Your task to perform on an android device: set default search engine in the chrome app Image 0: 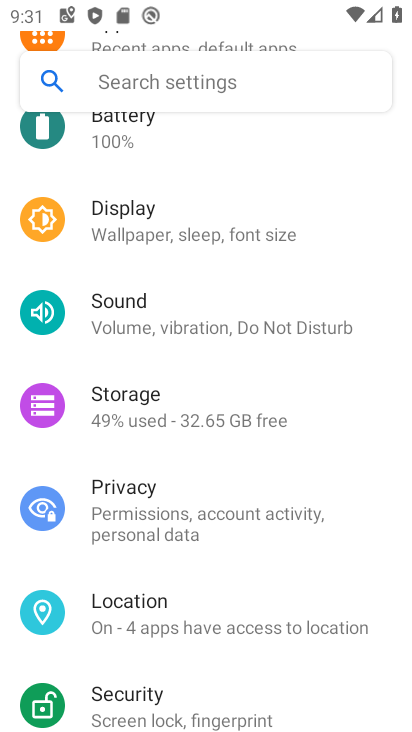
Step 0: press home button
Your task to perform on an android device: set default search engine in the chrome app Image 1: 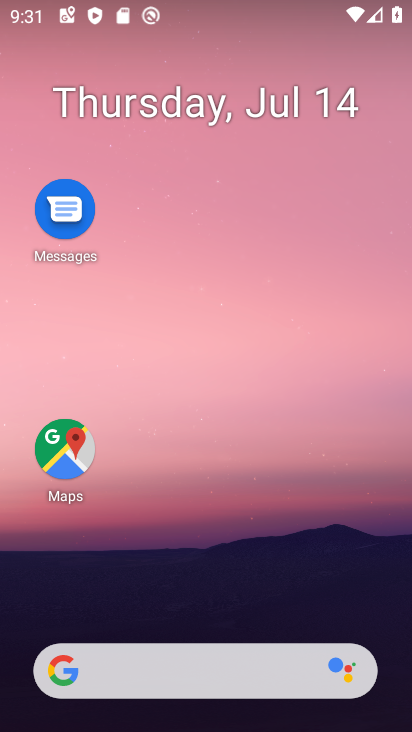
Step 1: drag from (208, 615) to (161, 83)
Your task to perform on an android device: set default search engine in the chrome app Image 2: 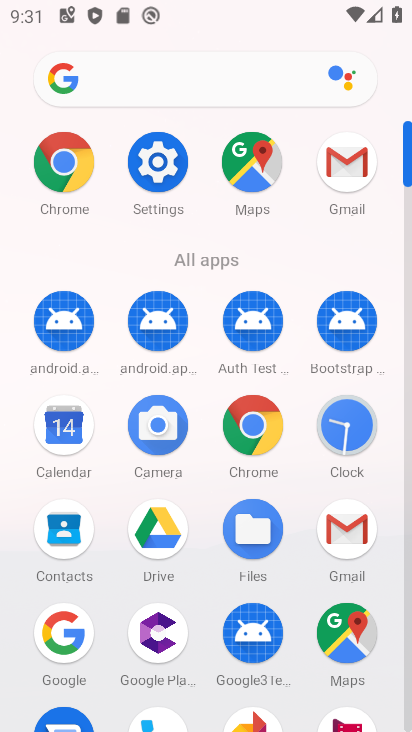
Step 2: click (237, 422)
Your task to perform on an android device: set default search engine in the chrome app Image 3: 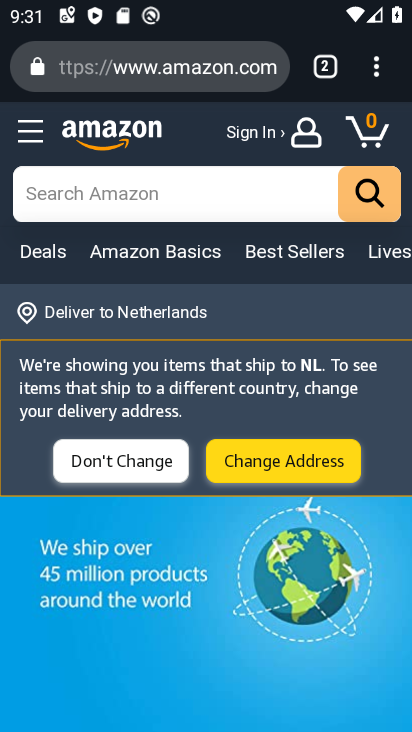
Step 3: click (380, 63)
Your task to perform on an android device: set default search engine in the chrome app Image 4: 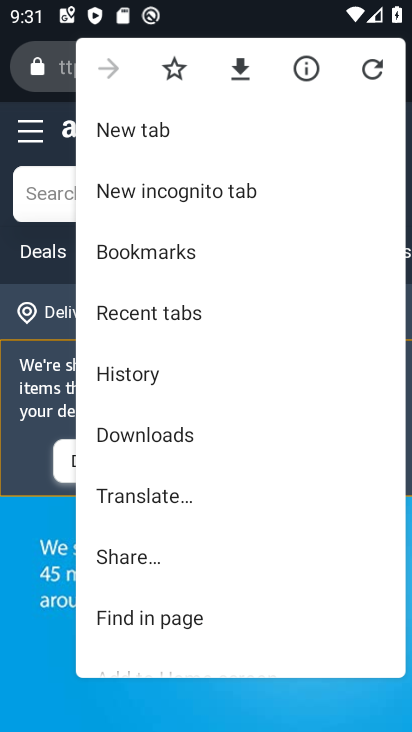
Step 4: drag from (142, 613) to (93, 14)
Your task to perform on an android device: set default search engine in the chrome app Image 5: 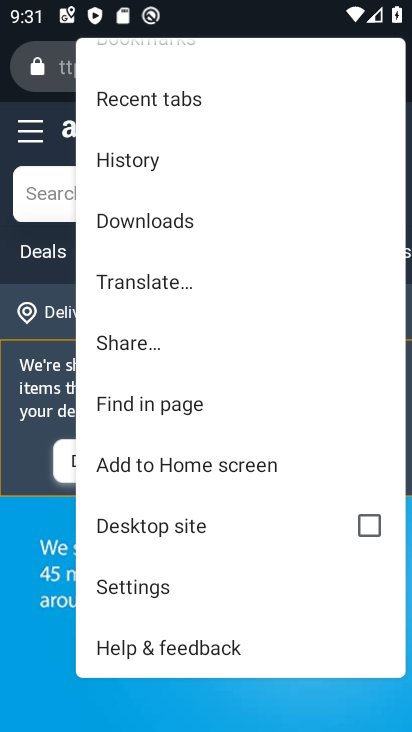
Step 5: click (121, 598)
Your task to perform on an android device: set default search engine in the chrome app Image 6: 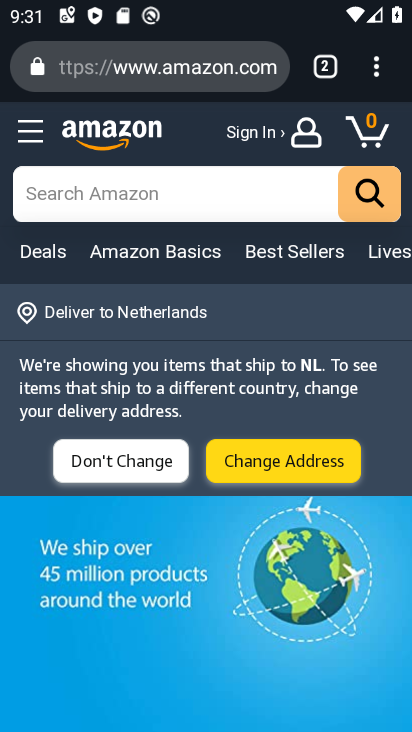
Step 6: click (121, 598)
Your task to perform on an android device: set default search engine in the chrome app Image 7: 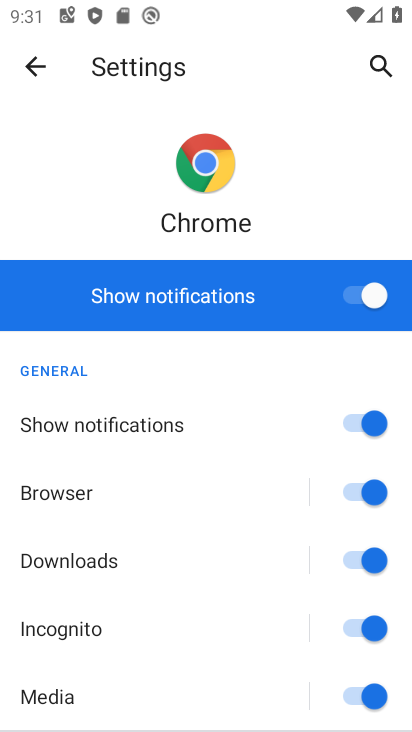
Step 7: click (29, 70)
Your task to perform on an android device: set default search engine in the chrome app Image 8: 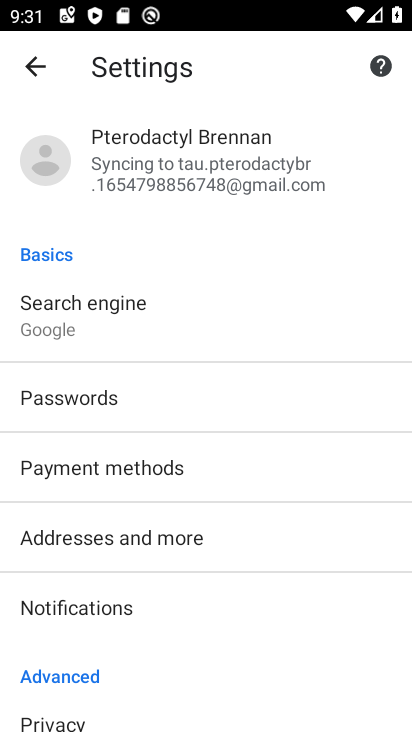
Step 8: click (43, 298)
Your task to perform on an android device: set default search engine in the chrome app Image 9: 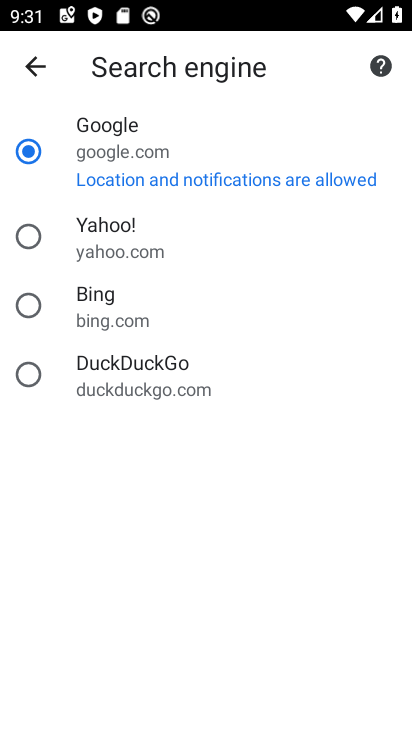
Step 9: click (35, 158)
Your task to perform on an android device: set default search engine in the chrome app Image 10: 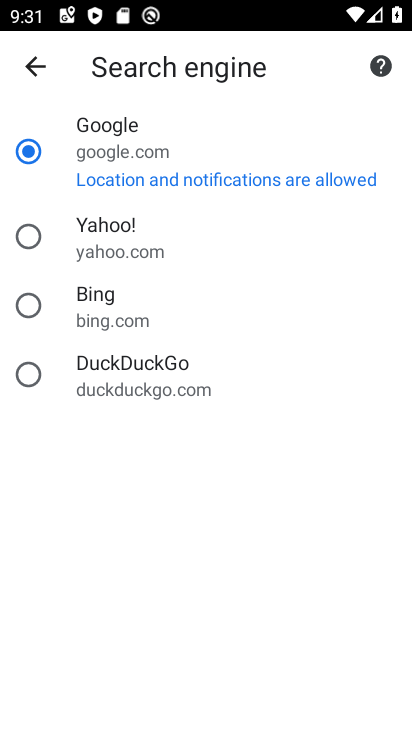
Step 10: task complete